Your task to perform on an android device: Open wifi settings Image 0: 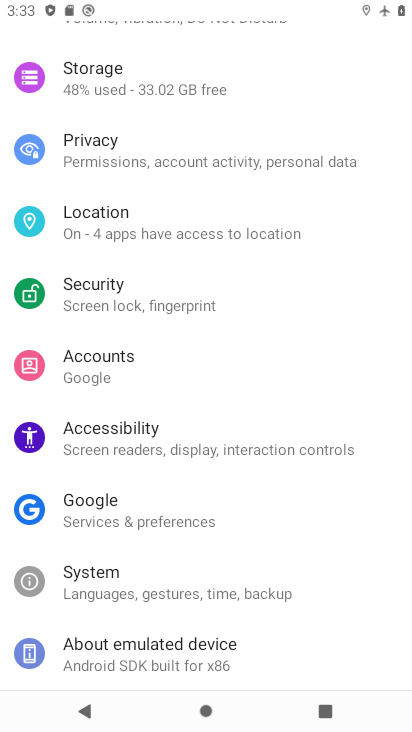
Step 0: drag from (249, 272) to (237, 476)
Your task to perform on an android device: Open wifi settings Image 1: 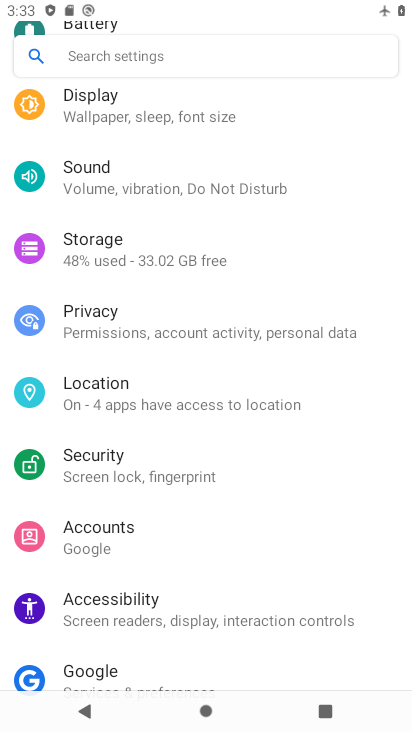
Step 1: drag from (142, 164) to (125, 720)
Your task to perform on an android device: Open wifi settings Image 2: 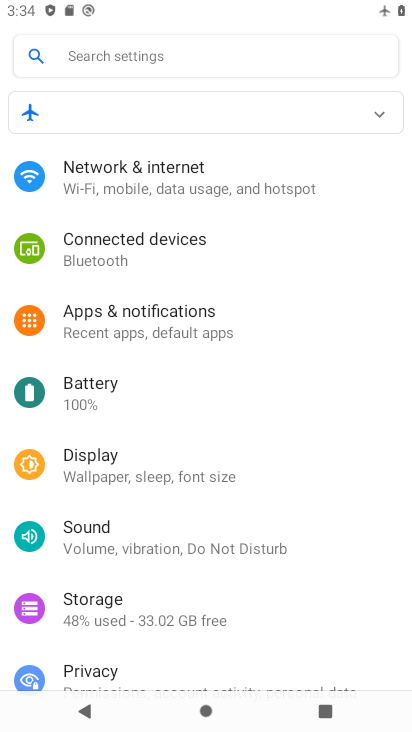
Step 2: click (149, 167)
Your task to perform on an android device: Open wifi settings Image 3: 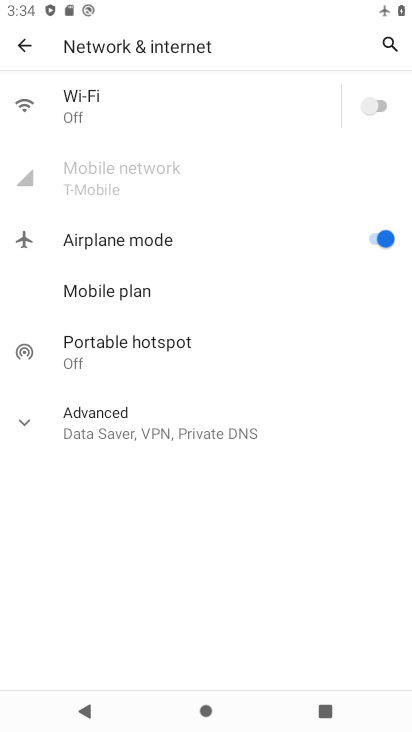
Step 3: click (111, 98)
Your task to perform on an android device: Open wifi settings Image 4: 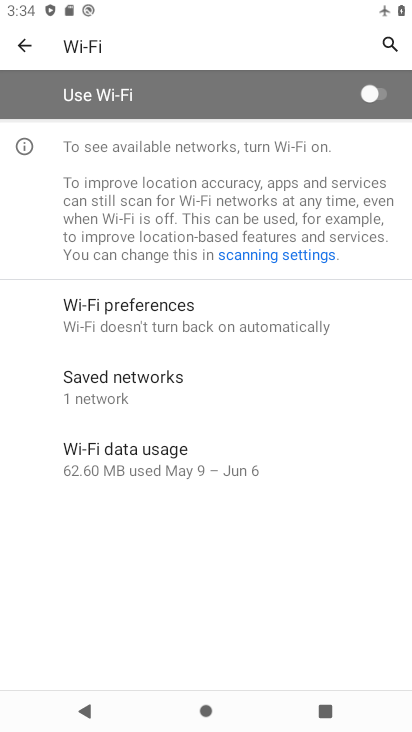
Step 4: task complete